Your task to perform on an android device: Open Wikipedia Image 0: 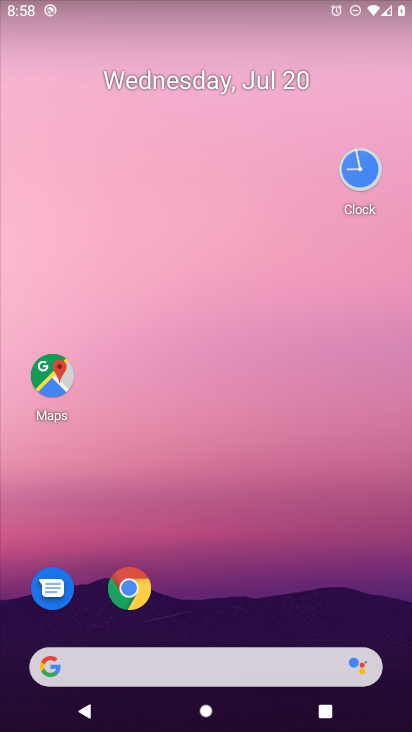
Step 0: click (87, 673)
Your task to perform on an android device: Open Wikipedia Image 1: 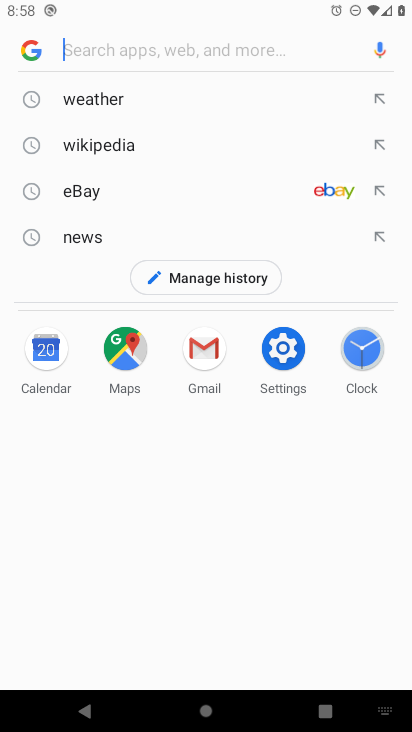
Step 1: click (100, 142)
Your task to perform on an android device: Open Wikipedia Image 2: 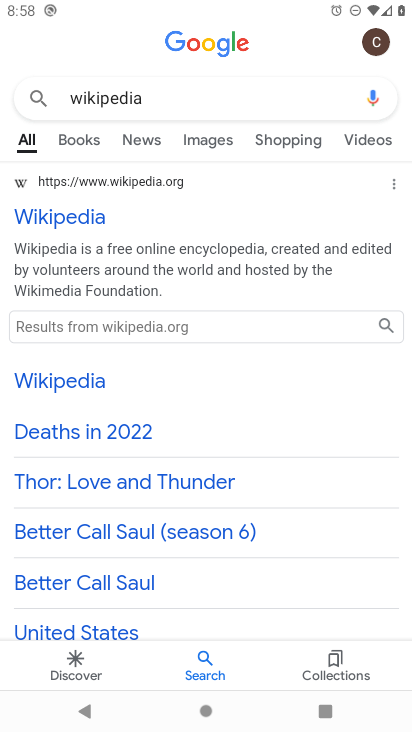
Step 2: task complete